Your task to perform on an android device: Open calendar and show me the first week of next month Image 0: 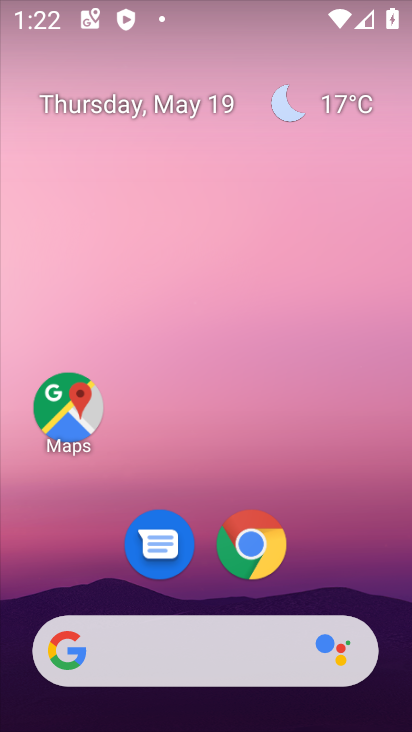
Step 0: drag from (217, 724) to (224, 151)
Your task to perform on an android device: Open calendar and show me the first week of next month Image 1: 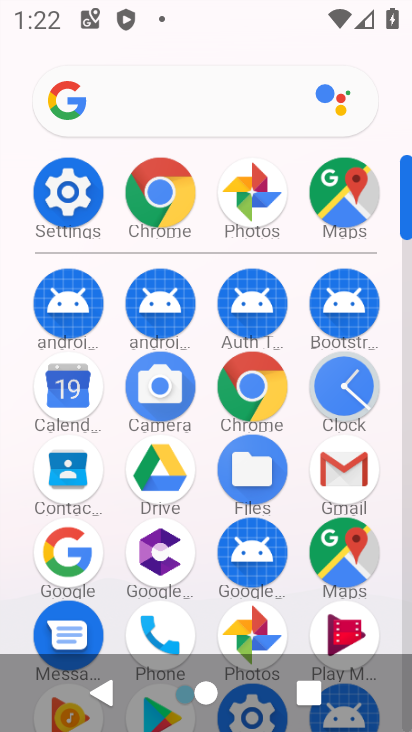
Step 1: click (66, 396)
Your task to perform on an android device: Open calendar and show me the first week of next month Image 2: 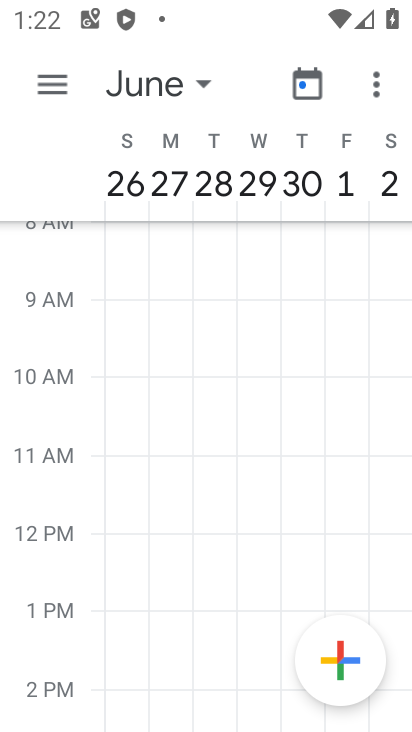
Step 2: click (197, 79)
Your task to perform on an android device: Open calendar and show me the first week of next month Image 3: 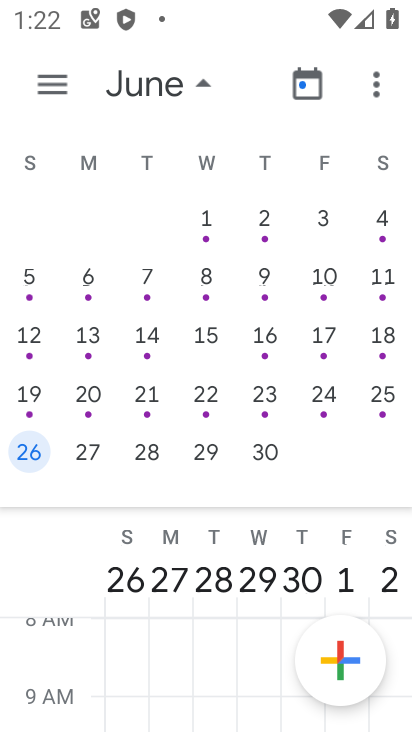
Step 3: click (86, 281)
Your task to perform on an android device: Open calendar and show me the first week of next month Image 4: 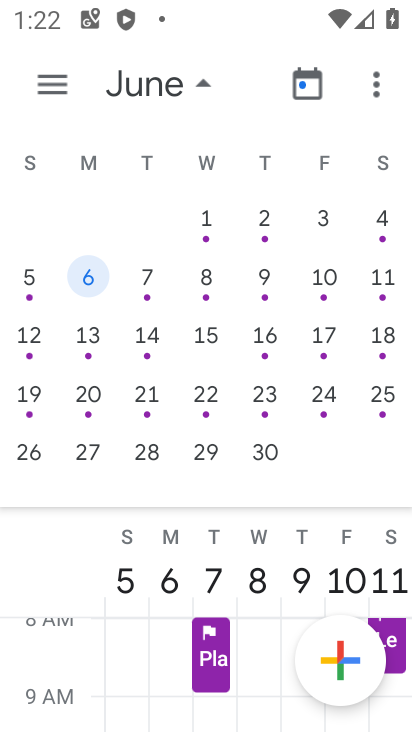
Step 4: click (46, 78)
Your task to perform on an android device: Open calendar and show me the first week of next month Image 5: 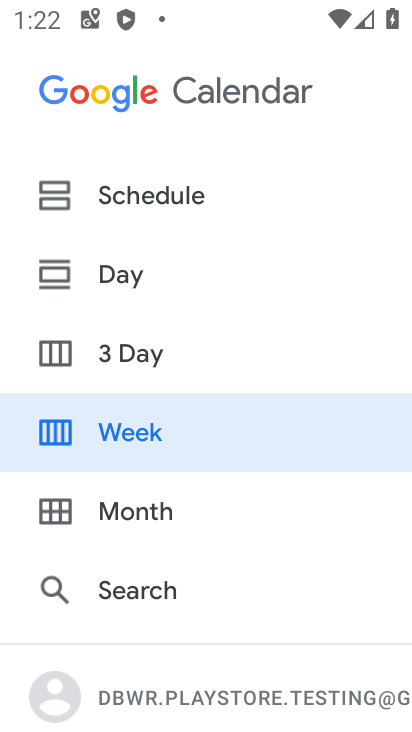
Step 5: click (118, 436)
Your task to perform on an android device: Open calendar and show me the first week of next month Image 6: 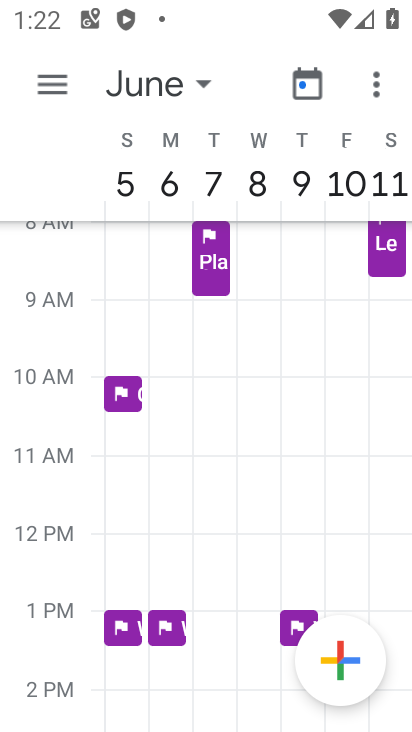
Step 6: task complete